Your task to perform on an android device: toggle javascript in the chrome app Image 0: 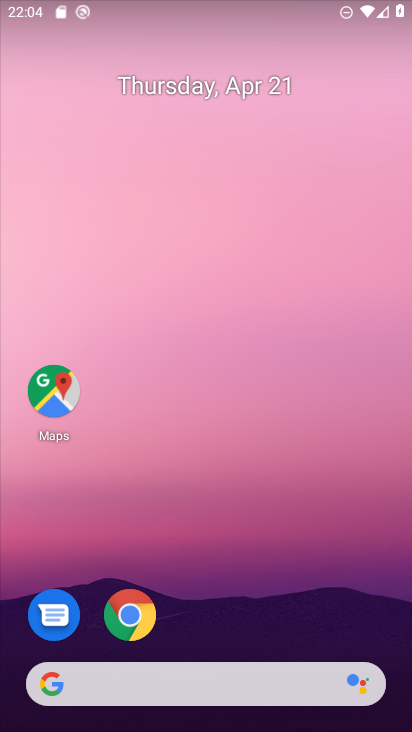
Step 0: drag from (143, 634) to (217, 2)
Your task to perform on an android device: toggle javascript in the chrome app Image 1: 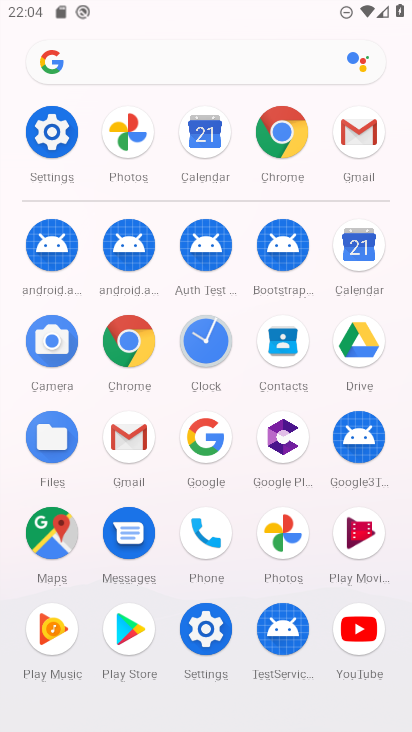
Step 1: click (138, 332)
Your task to perform on an android device: toggle javascript in the chrome app Image 2: 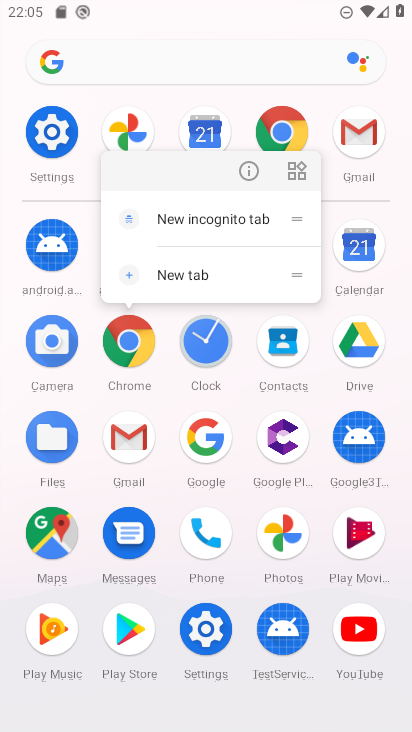
Step 2: click (242, 161)
Your task to perform on an android device: toggle javascript in the chrome app Image 3: 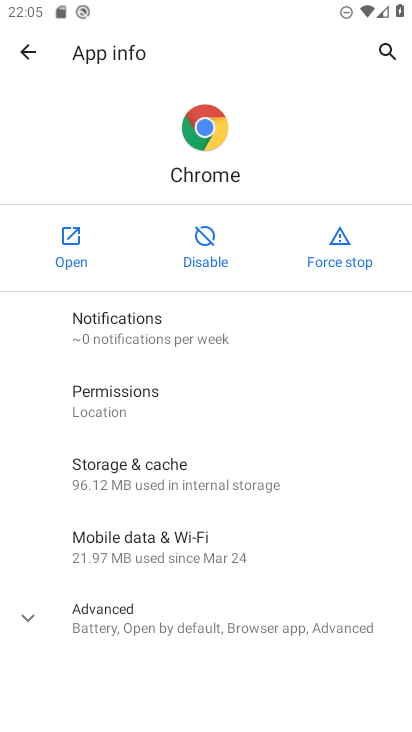
Step 3: click (67, 230)
Your task to perform on an android device: toggle javascript in the chrome app Image 4: 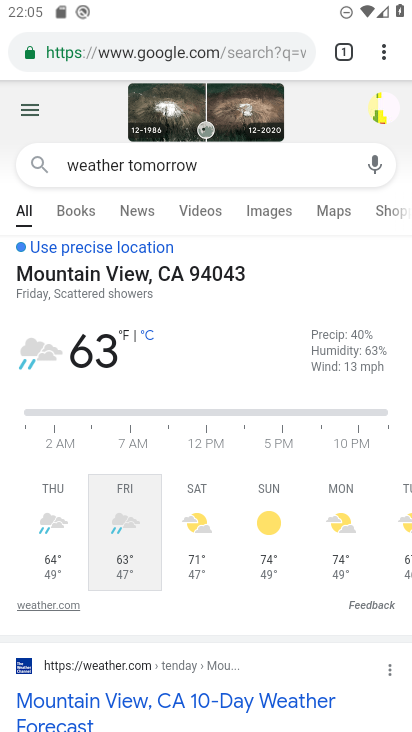
Step 4: drag from (190, 266) to (320, 666)
Your task to perform on an android device: toggle javascript in the chrome app Image 5: 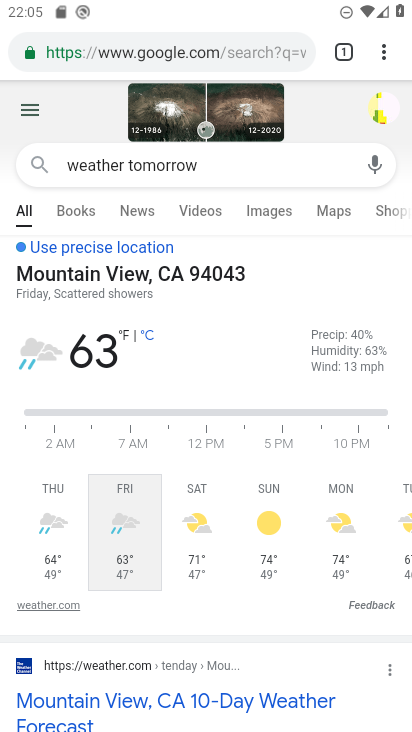
Step 5: drag from (376, 53) to (240, 622)
Your task to perform on an android device: toggle javascript in the chrome app Image 6: 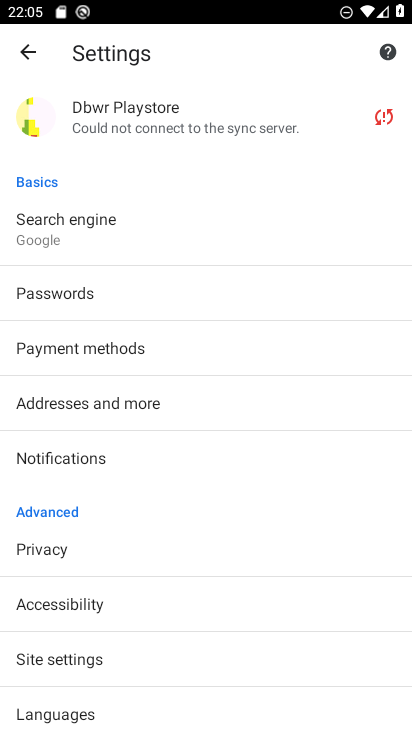
Step 6: drag from (161, 640) to (279, 288)
Your task to perform on an android device: toggle javascript in the chrome app Image 7: 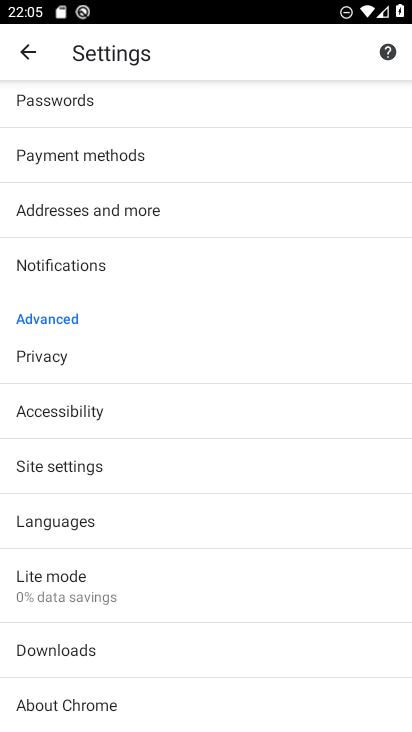
Step 7: click (128, 468)
Your task to perform on an android device: toggle javascript in the chrome app Image 8: 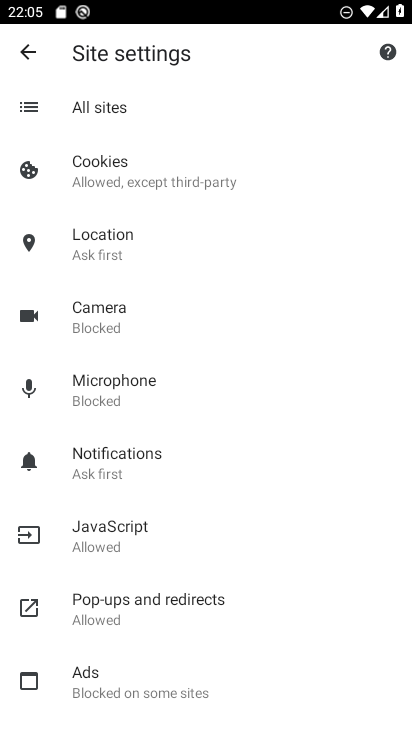
Step 8: click (160, 531)
Your task to perform on an android device: toggle javascript in the chrome app Image 9: 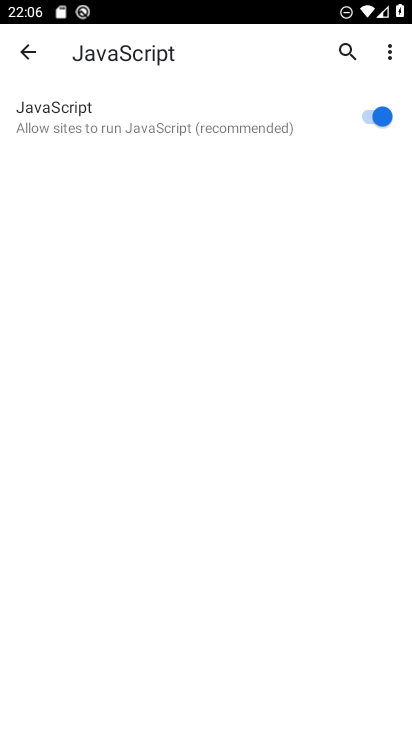
Step 9: drag from (133, 225) to (220, 549)
Your task to perform on an android device: toggle javascript in the chrome app Image 10: 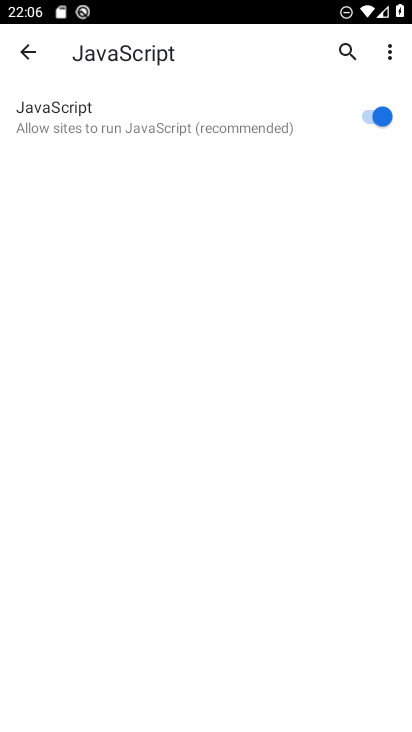
Step 10: drag from (205, 582) to (277, 422)
Your task to perform on an android device: toggle javascript in the chrome app Image 11: 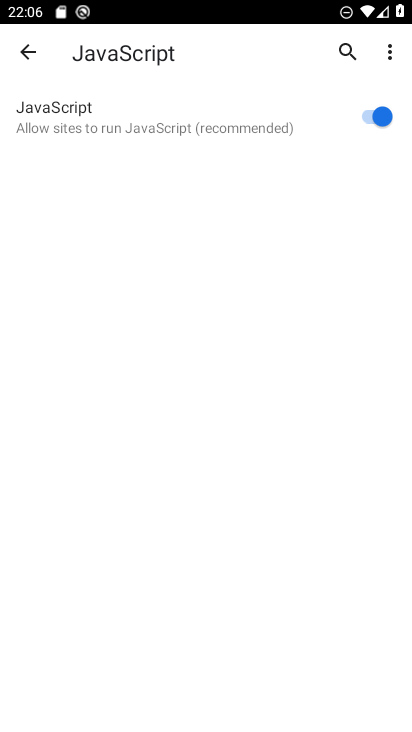
Step 11: drag from (177, 572) to (287, 304)
Your task to perform on an android device: toggle javascript in the chrome app Image 12: 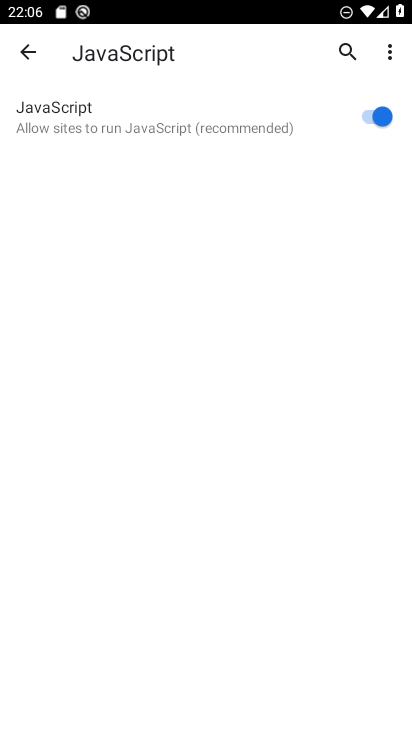
Step 12: click (157, 211)
Your task to perform on an android device: toggle javascript in the chrome app Image 13: 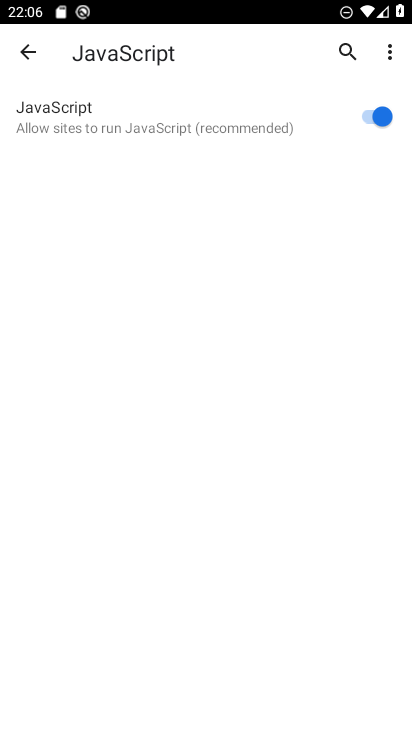
Step 13: drag from (276, 443) to (288, 250)
Your task to perform on an android device: toggle javascript in the chrome app Image 14: 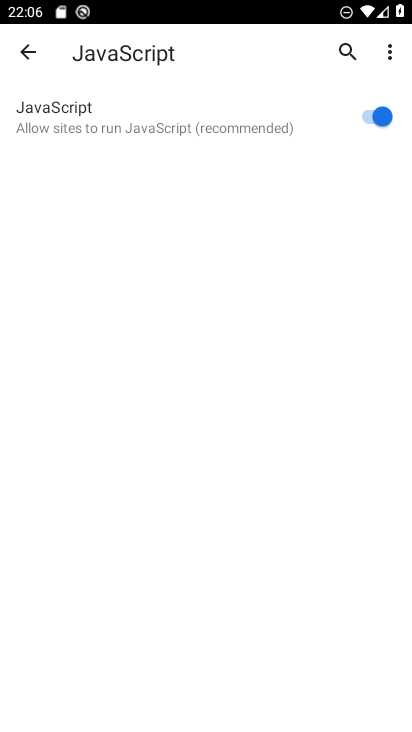
Step 14: click (362, 116)
Your task to perform on an android device: toggle javascript in the chrome app Image 15: 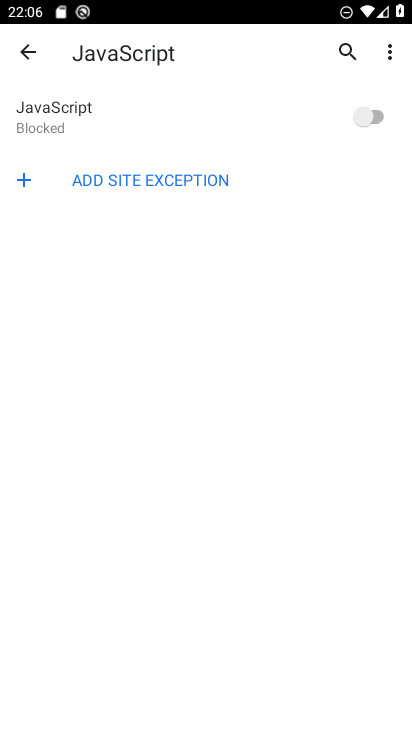
Step 15: task complete